Your task to perform on an android device: toggle javascript in the chrome app Image 0: 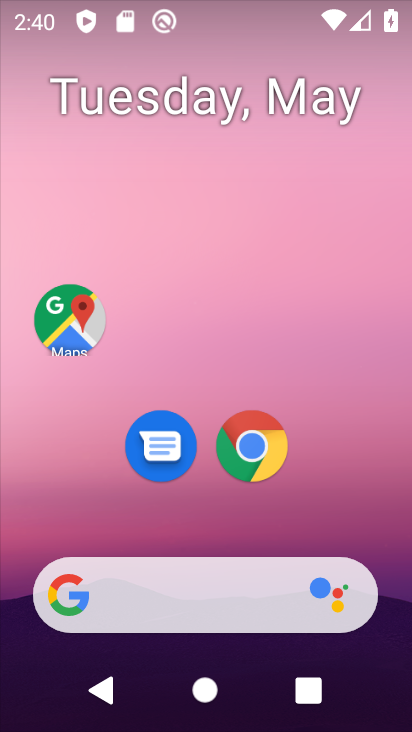
Step 0: click (252, 449)
Your task to perform on an android device: toggle javascript in the chrome app Image 1: 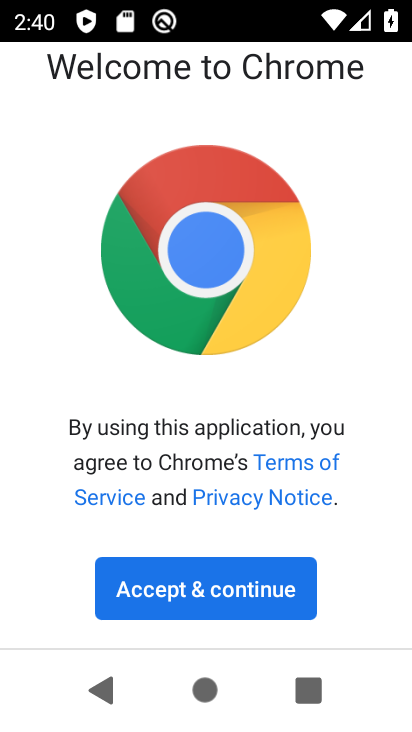
Step 1: click (262, 595)
Your task to perform on an android device: toggle javascript in the chrome app Image 2: 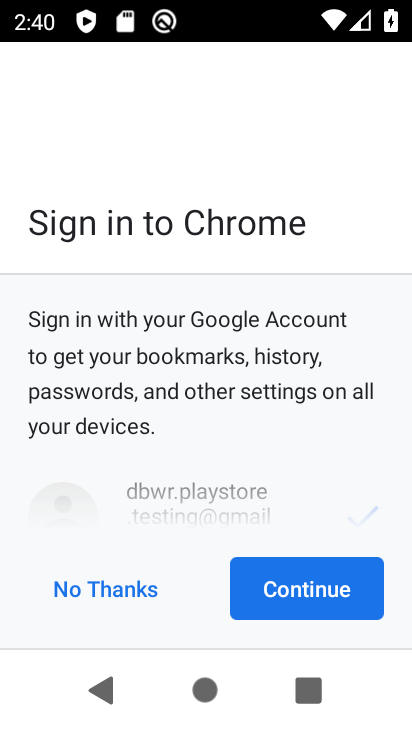
Step 2: click (262, 586)
Your task to perform on an android device: toggle javascript in the chrome app Image 3: 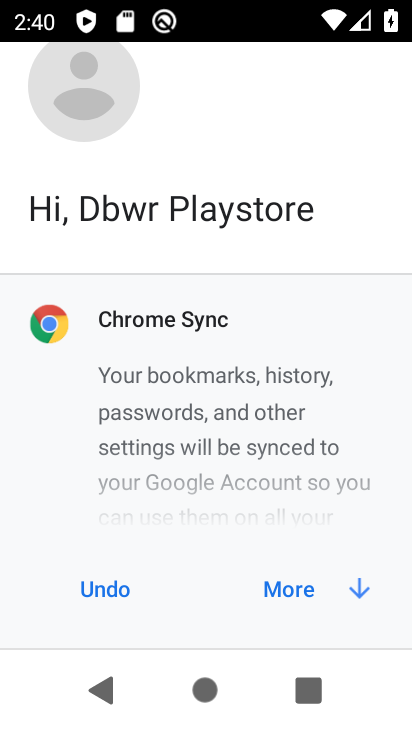
Step 3: click (325, 576)
Your task to perform on an android device: toggle javascript in the chrome app Image 4: 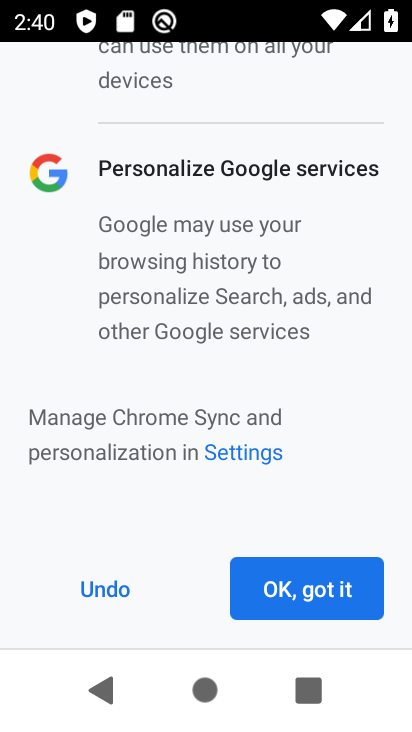
Step 4: click (325, 576)
Your task to perform on an android device: toggle javascript in the chrome app Image 5: 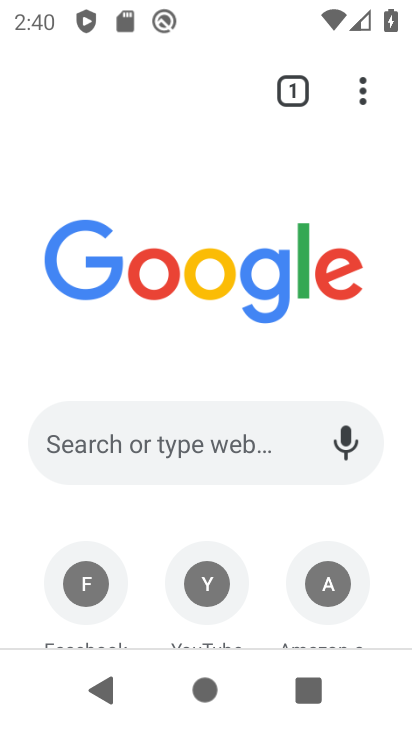
Step 5: click (364, 83)
Your task to perform on an android device: toggle javascript in the chrome app Image 6: 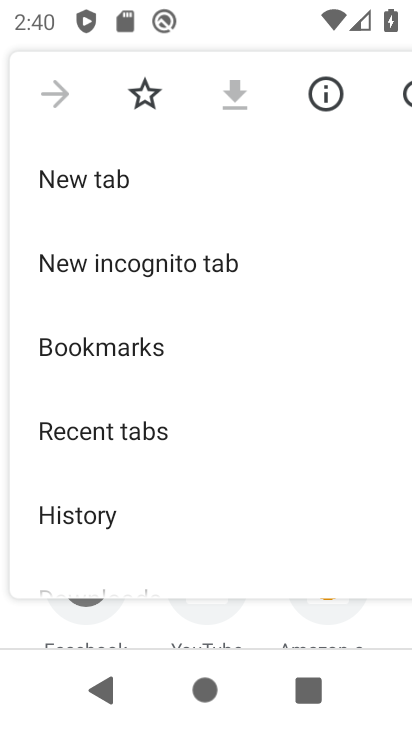
Step 6: drag from (146, 434) to (120, 138)
Your task to perform on an android device: toggle javascript in the chrome app Image 7: 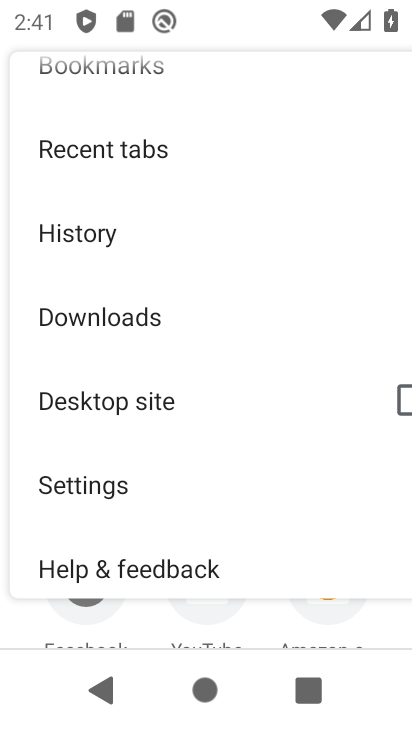
Step 7: click (97, 488)
Your task to perform on an android device: toggle javascript in the chrome app Image 8: 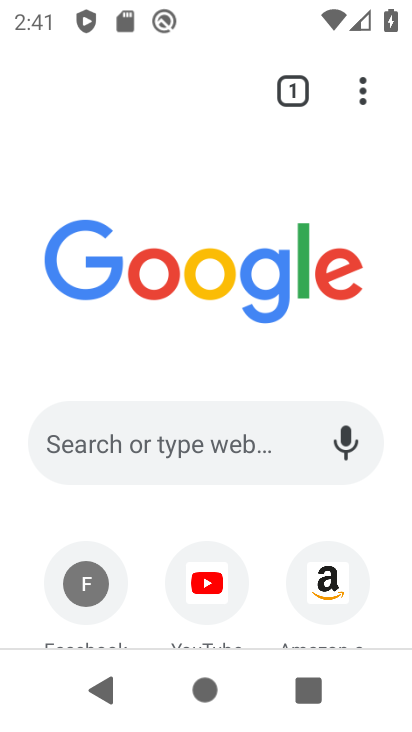
Step 8: click (97, 488)
Your task to perform on an android device: toggle javascript in the chrome app Image 9: 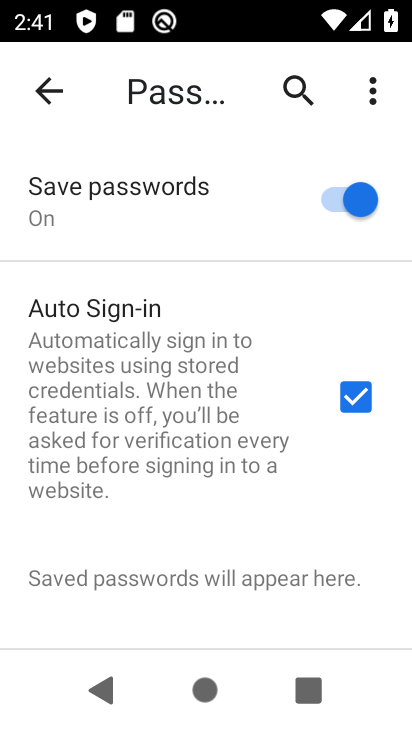
Step 9: click (41, 108)
Your task to perform on an android device: toggle javascript in the chrome app Image 10: 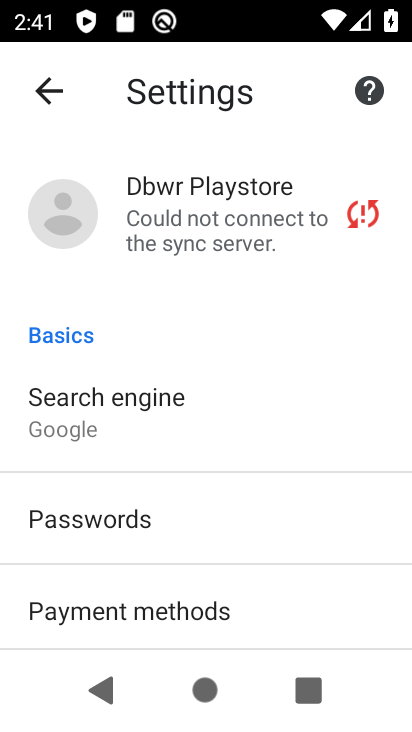
Step 10: drag from (278, 536) to (210, 226)
Your task to perform on an android device: toggle javascript in the chrome app Image 11: 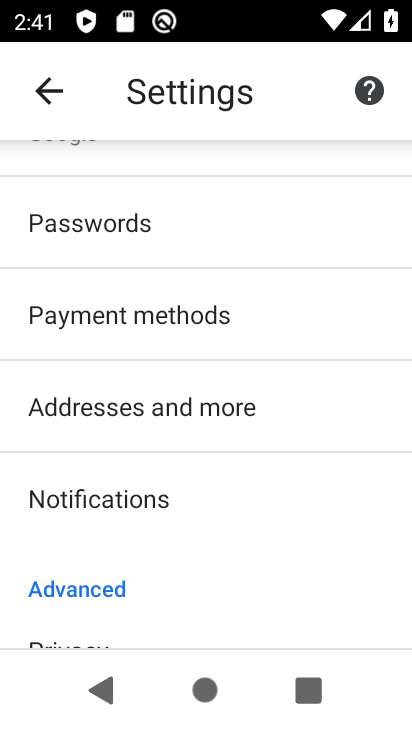
Step 11: drag from (214, 582) to (148, 254)
Your task to perform on an android device: toggle javascript in the chrome app Image 12: 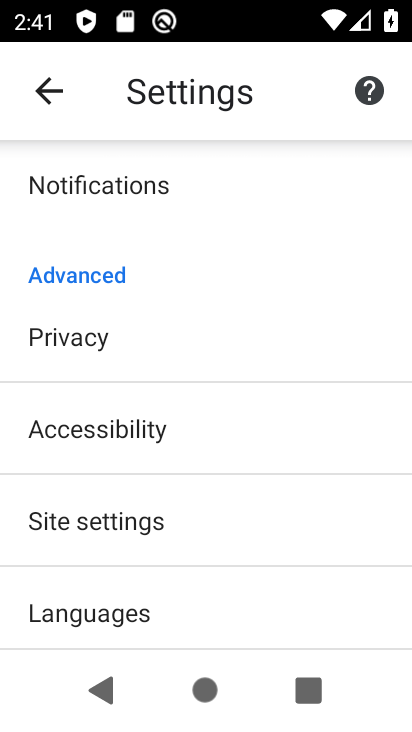
Step 12: click (120, 507)
Your task to perform on an android device: toggle javascript in the chrome app Image 13: 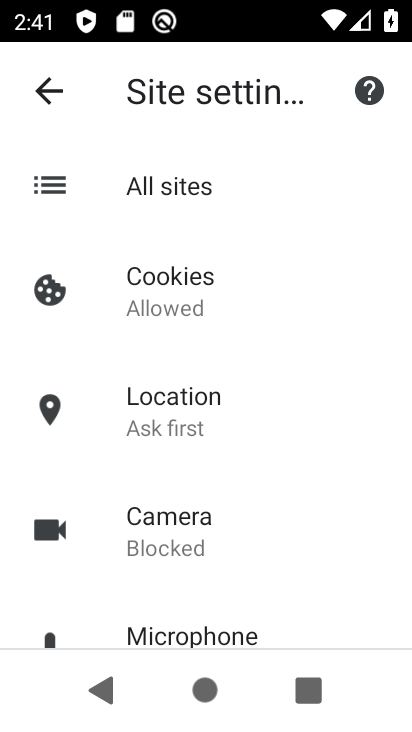
Step 13: drag from (198, 481) to (224, 198)
Your task to perform on an android device: toggle javascript in the chrome app Image 14: 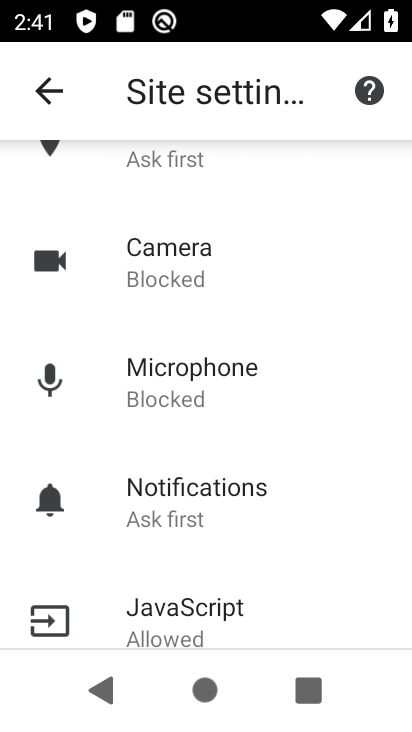
Step 14: click (220, 604)
Your task to perform on an android device: toggle javascript in the chrome app Image 15: 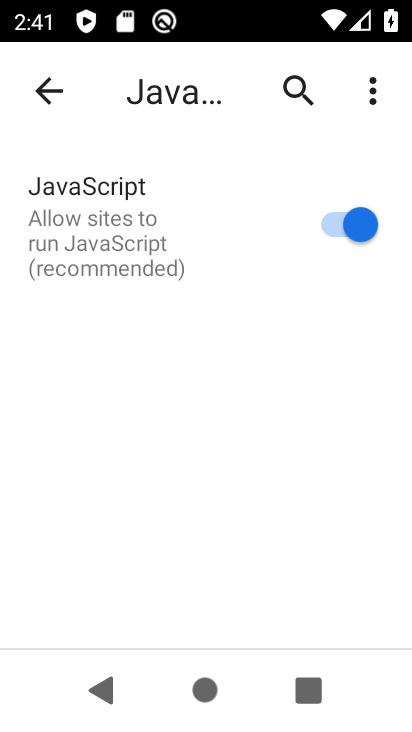
Step 15: click (331, 217)
Your task to perform on an android device: toggle javascript in the chrome app Image 16: 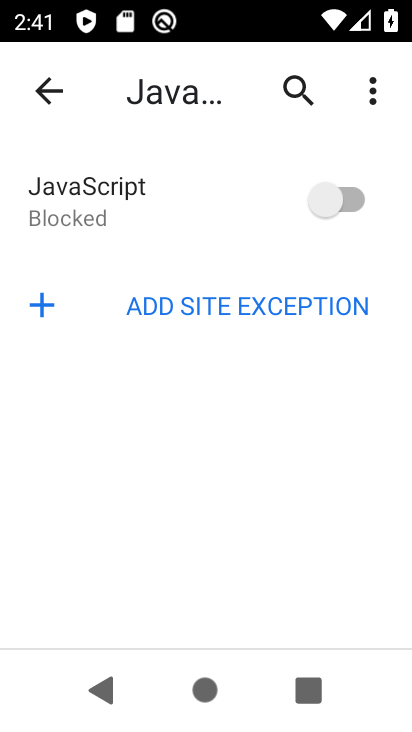
Step 16: task complete